Your task to perform on an android device: Open display settings Image 0: 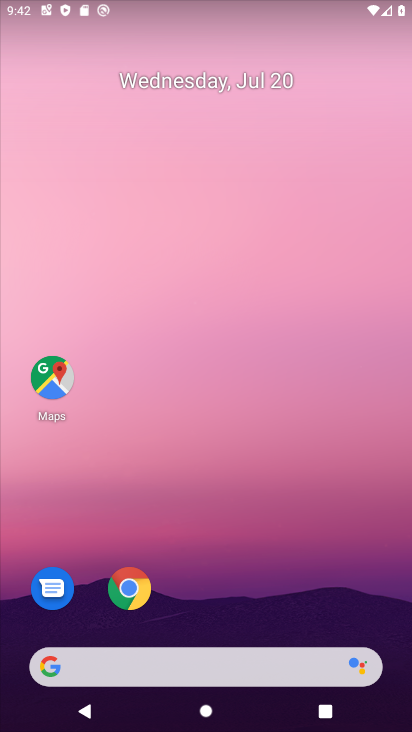
Step 0: press home button
Your task to perform on an android device: Open display settings Image 1: 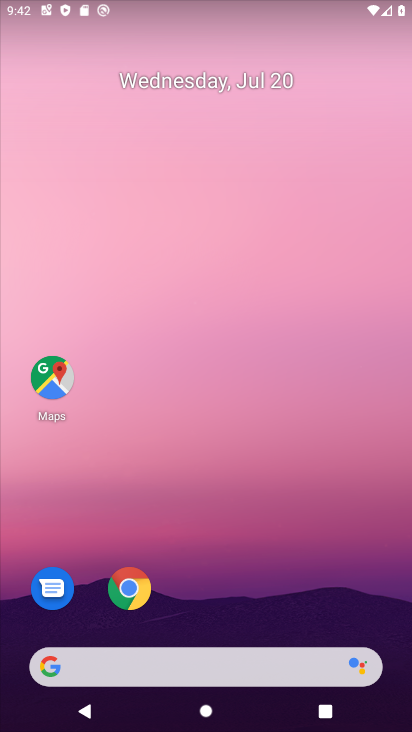
Step 1: drag from (322, 589) to (355, 115)
Your task to perform on an android device: Open display settings Image 2: 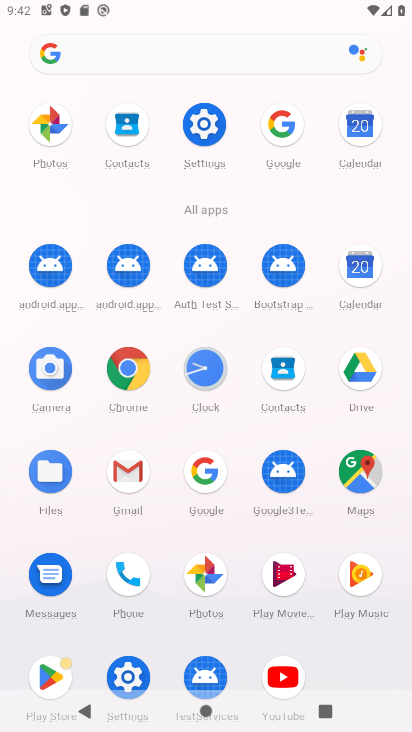
Step 2: click (200, 119)
Your task to perform on an android device: Open display settings Image 3: 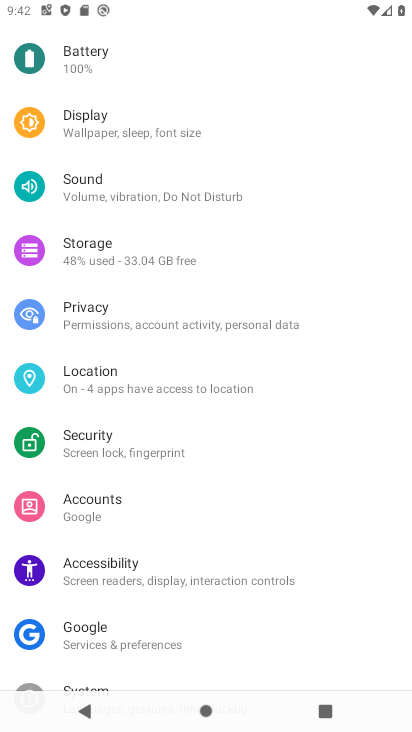
Step 3: click (97, 132)
Your task to perform on an android device: Open display settings Image 4: 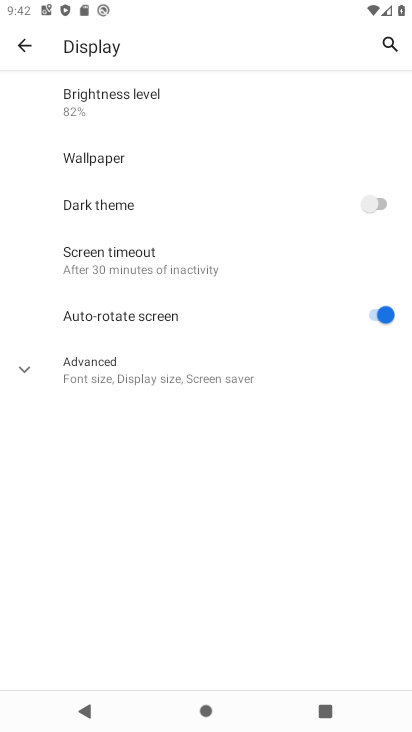
Step 4: task complete